Your task to perform on an android device: Open the phone app and click the voicemail tab. Image 0: 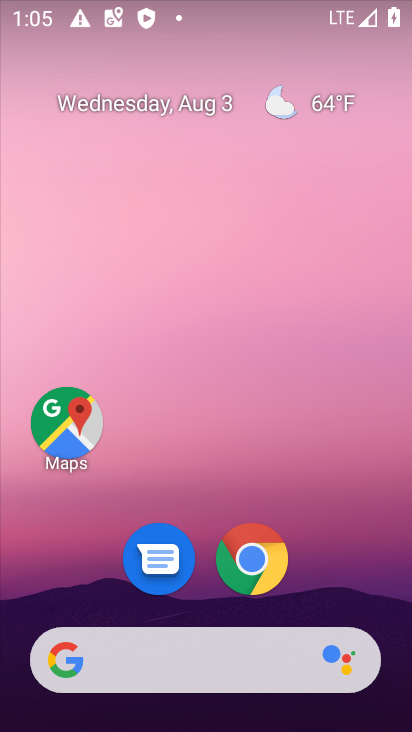
Step 0: drag from (195, 587) to (199, 84)
Your task to perform on an android device: Open the phone app and click the voicemail tab. Image 1: 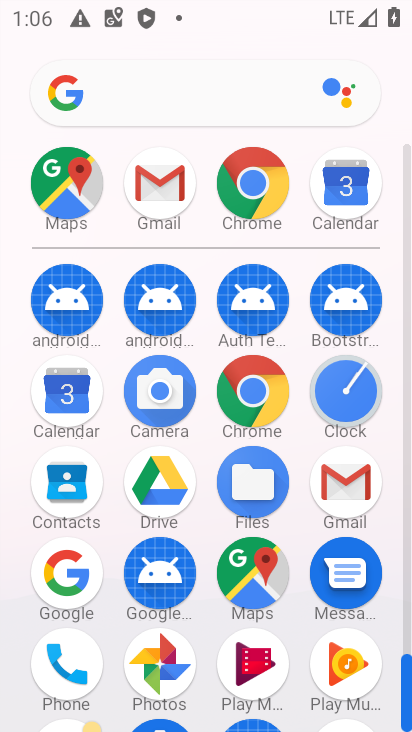
Step 1: click (61, 661)
Your task to perform on an android device: Open the phone app and click the voicemail tab. Image 2: 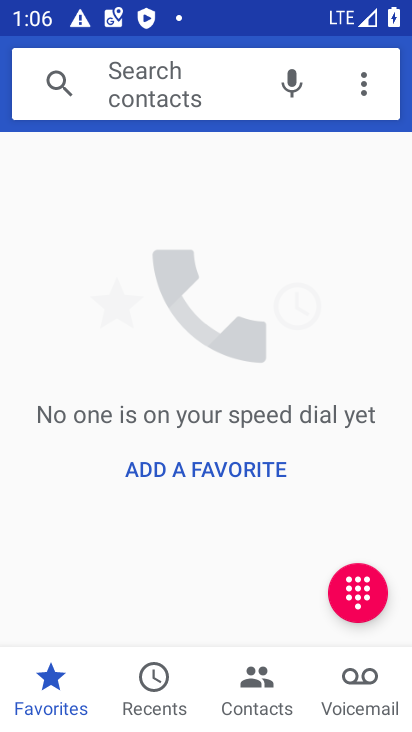
Step 2: click (371, 680)
Your task to perform on an android device: Open the phone app and click the voicemail tab. Image 3: 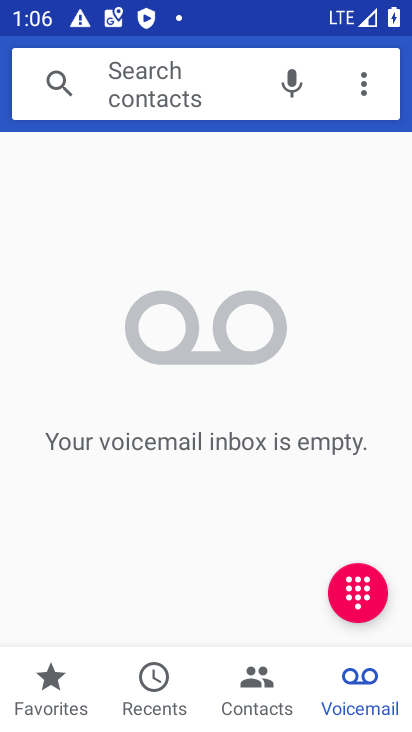
Step 3: task complete